Your task to perform on an android device: Go to Google maps Image 0: 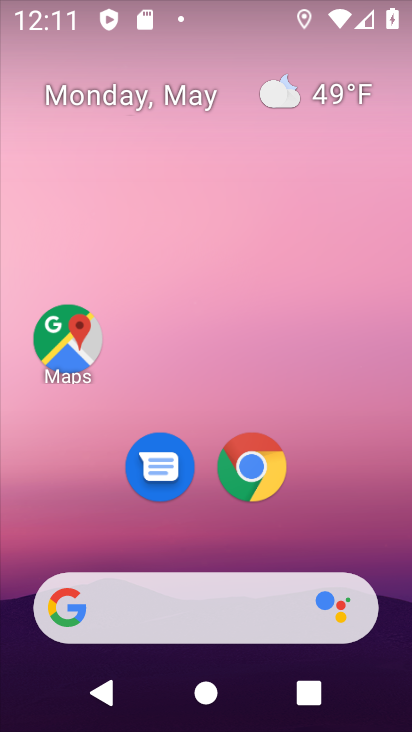
Step 0: drag from (339, 521) to (381, 142)
Your task to perform on an android device: Go to Google maps Image 1: 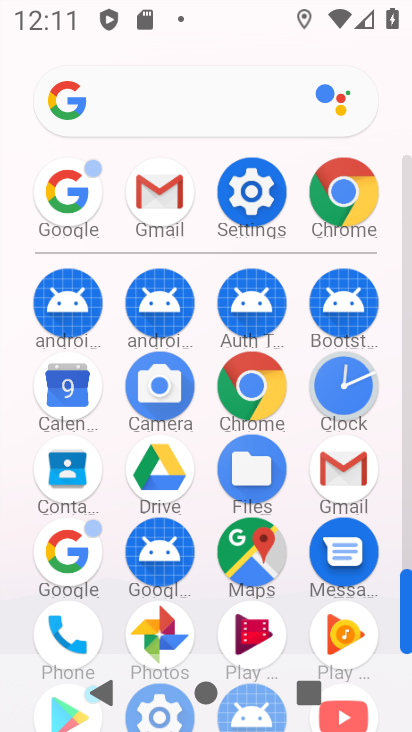
Step 1: click (253, 550)
Your task to perform on an android device: Go to Google maps Image 2: 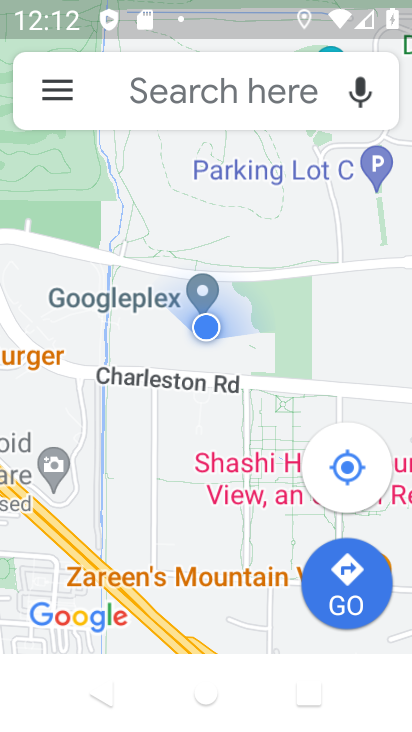
Step 2: task complete